Your task to perform on an android device: Go to Amazon Image 0: 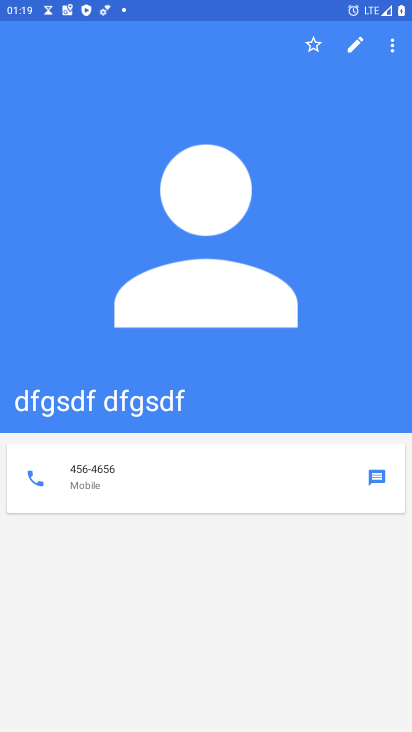
Step 0: press home button
Your task to perform on an android device: Go to Amazon Image 1: 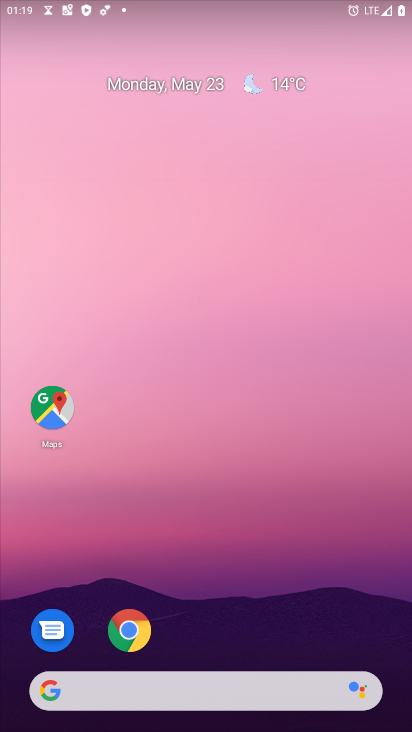
Step 1: click (136, 625)
Your task to perform on an android device: Go to Amazon Image 2: 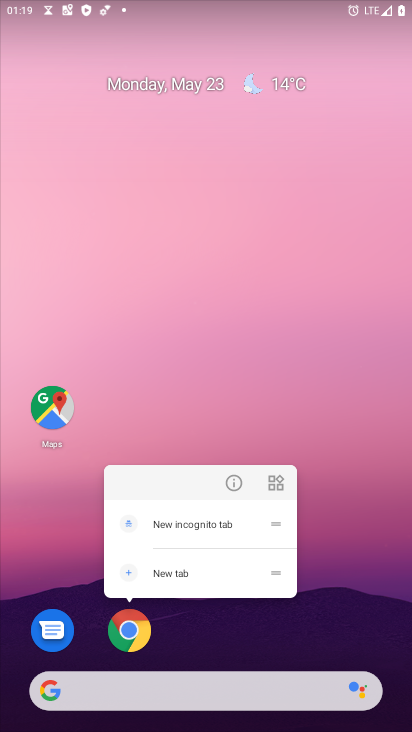
Step 2: click (140, 636)
Your task to perform on an android device: Go to Amazon Image 3: 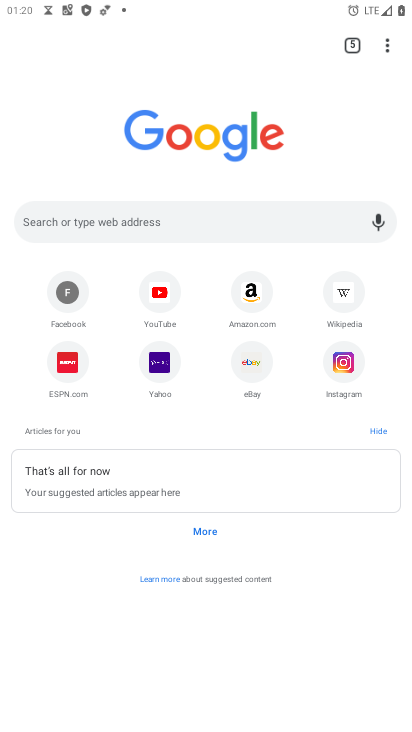
Step 3: click (257, 294)
Your task to perform on an android device: Go to Amazon Image 4: 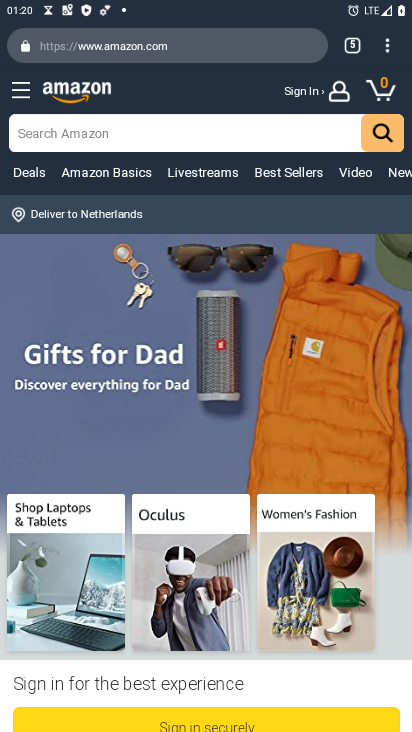
Step 4: task complete